Your task to perform on an android device: Go to Google maps Image 0: 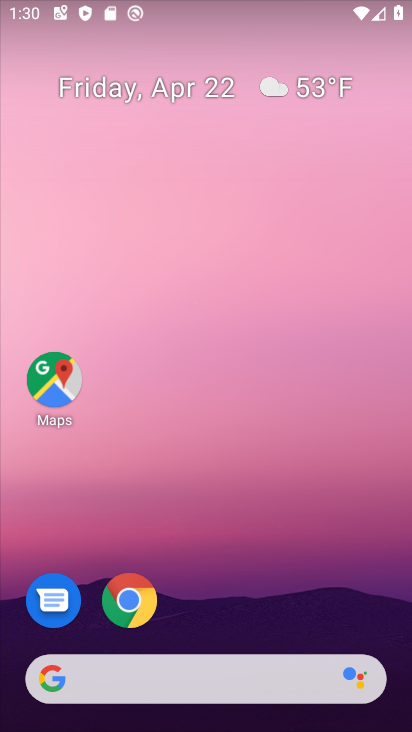
Step 0: drag from (241, 720) to (223, 188)
Your task to perform on an android device: Go to Google maps Image 1: 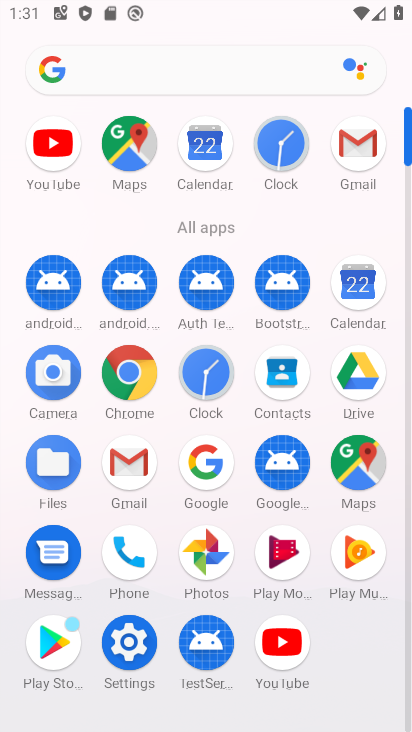
Step 1: click (358, 464)
Your task to perform on an android device: Go to Google maps Image 2: 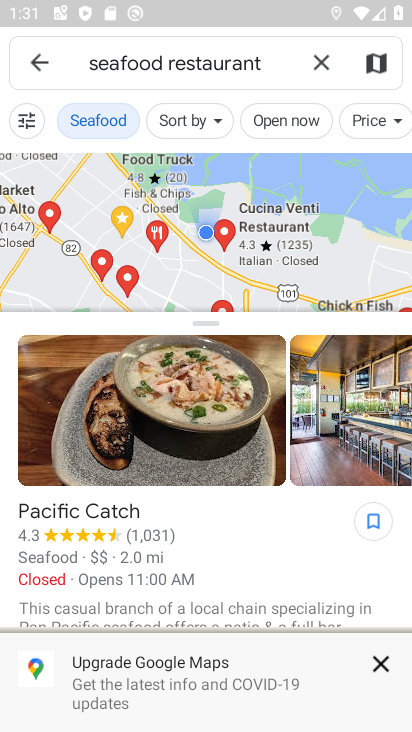
Step 2: task complete